Your task to perform on an android device: Go to Maps Image 0: 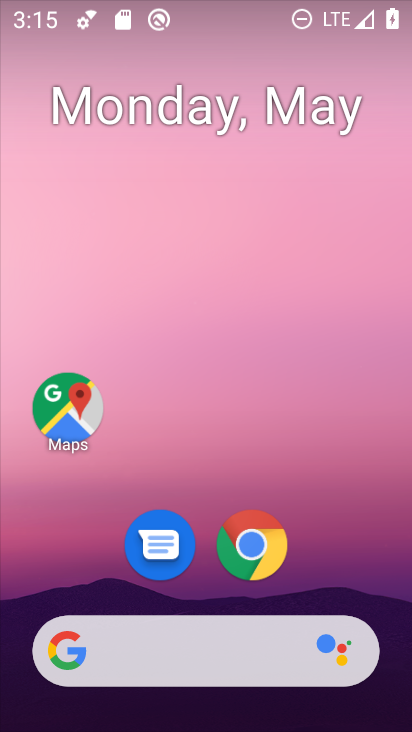
Step 0: click (91, 422)
Your task to perform on an android device: Go to Maps Image 1: 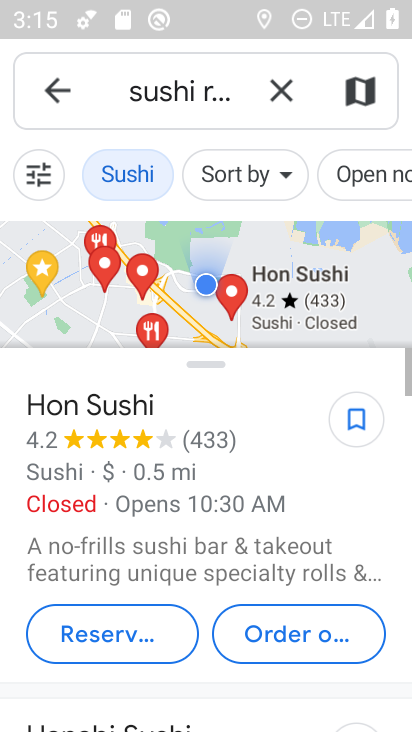
Step 1: click (280, 95)
Your task to perform on an android device: Go to Maps Image 2: 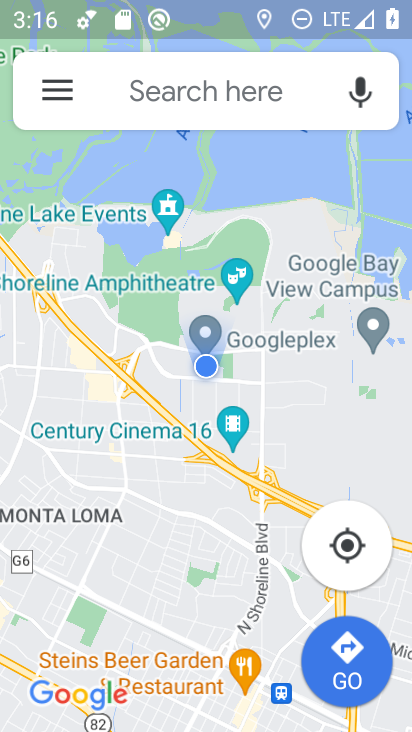
Step 2: task complete